Your task to perform on an android device: Search for Italian restaurants on Maps Image 0: 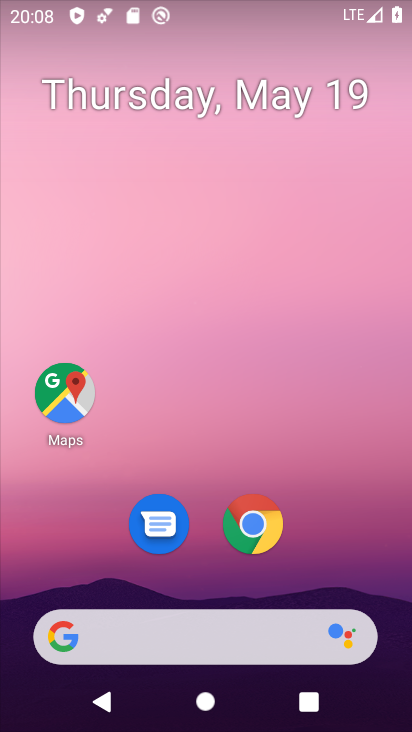
Step 0: click (68, 396)
Your task to perform on an android device: Search for Italian restaurants on Maps Image 1: 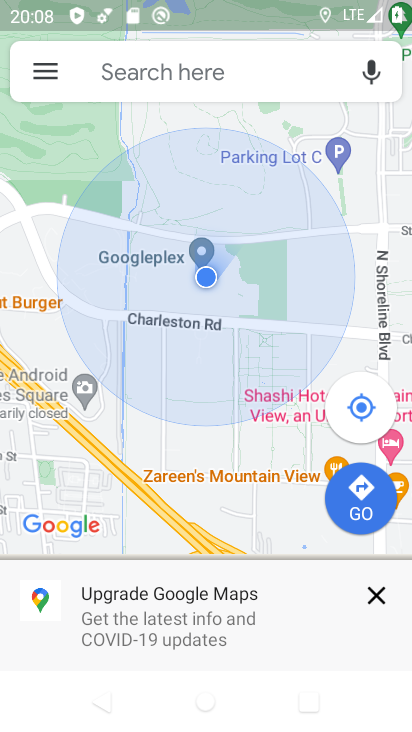
Step 1: click (202, 75)
Your task to perform on an android device: Search for Italian restaurants on Maps Image 2: 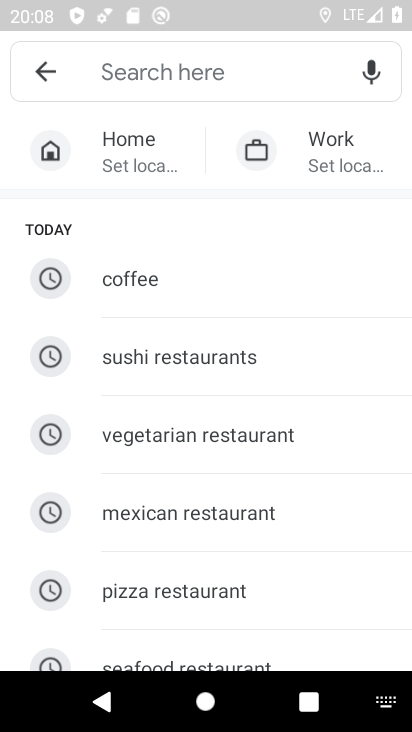
Step 2: drag from (196, 463) to (239, 225)
Your task to perform on an android device: Search for Italian restaurants on Maps Image 3: 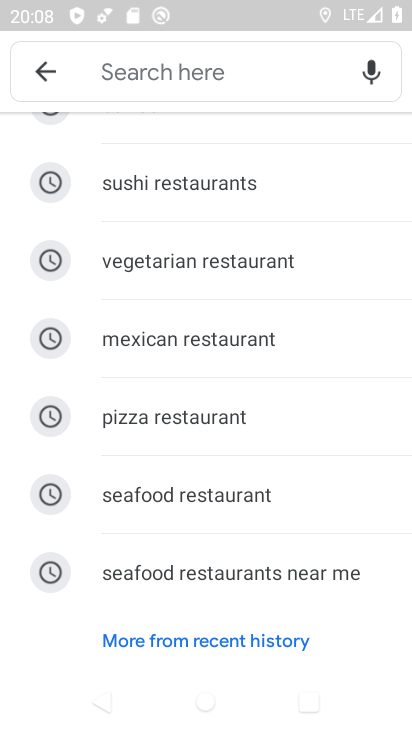
Step 3: drag from (241, 219) to (227, 583)
Your task to perform on an android device: Search for Italian restaurants on Maps Image 4: 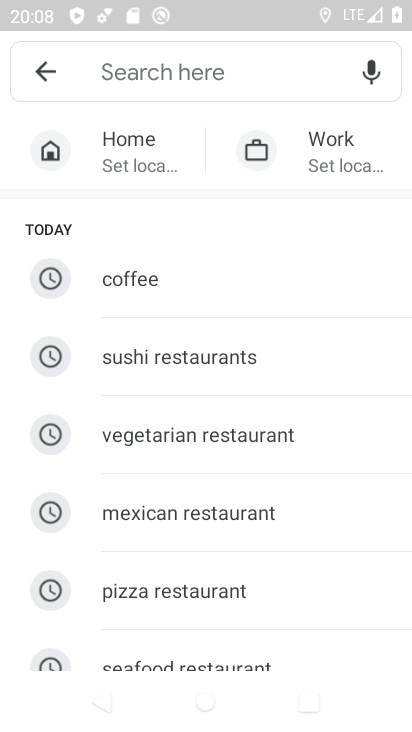
Step 4: click (271, 69)
Your task to perform on an android device: Search for Italian restaurants on Maps Image 5: 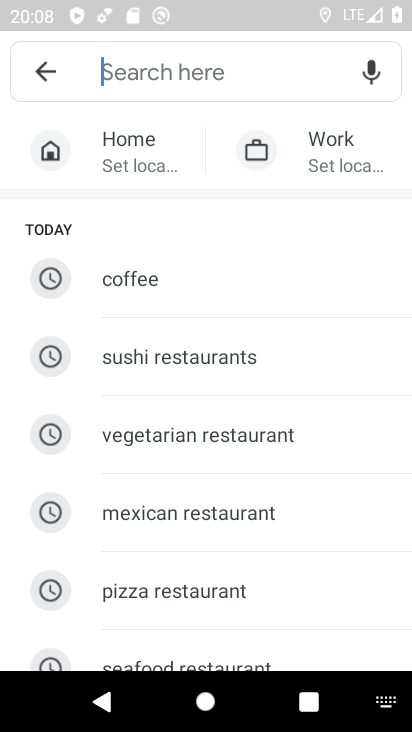
Step 5: type "italian restaurants"
Your task to perform on an android device: Search for Italian restaurants on Maps Image 6: 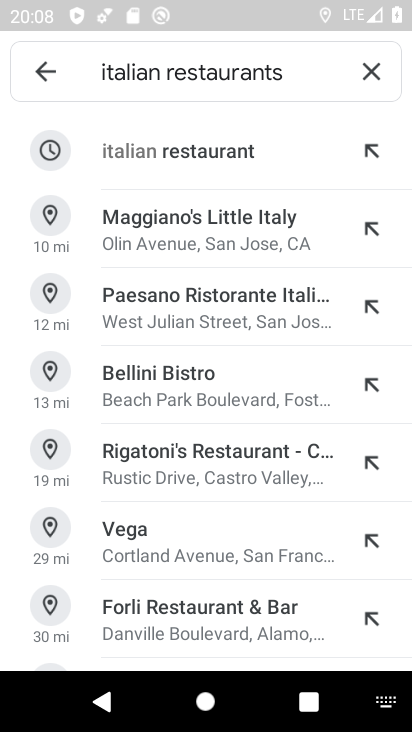
Step 6: click (219, 152)
Your task to perform on an android device: Search for Italian restaurants on Maps Image 7: 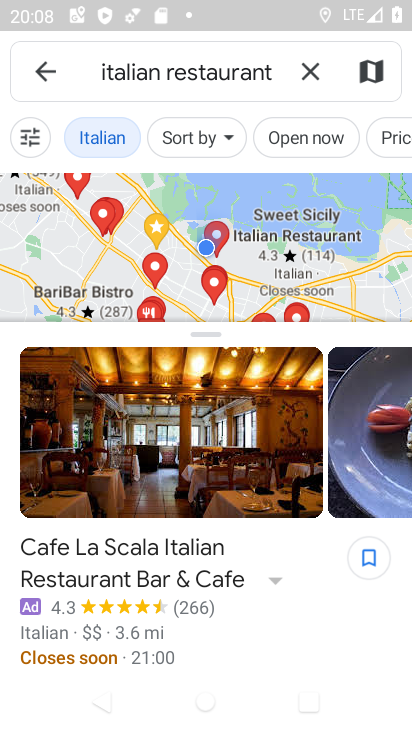
Step 7: task complete